Your task to perform on an android device: find snoozed emails in the gmail app Image 0: 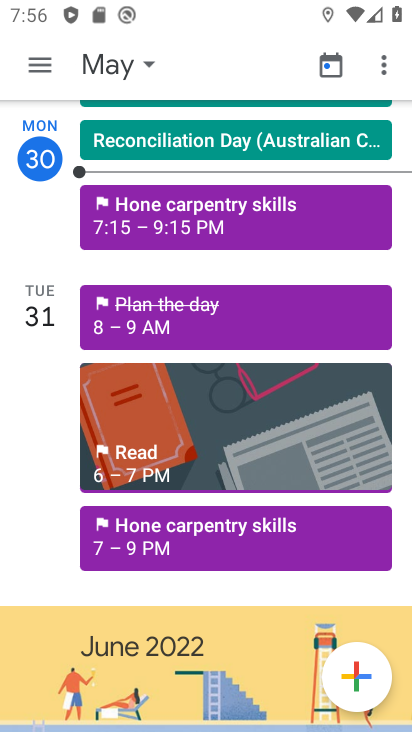
Step 0: press home button
Your task to perform on an android device: find snoozed emails in the gmail app Image 1: 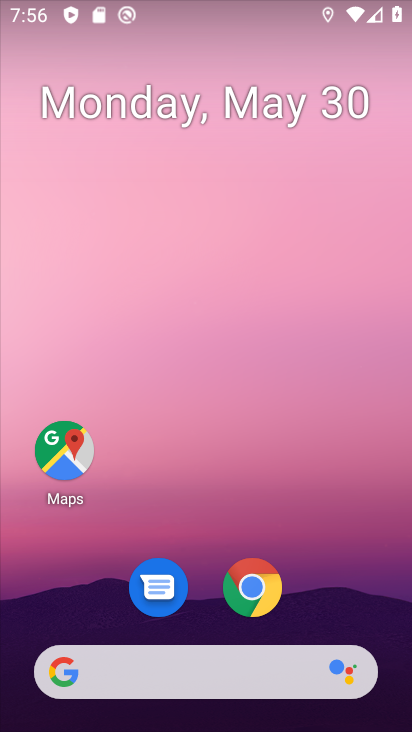
Step 1: drag from (231, 665) to (356, 43)
Your task to perform on an android device: find snoozed emails in the gmail app Image 2: 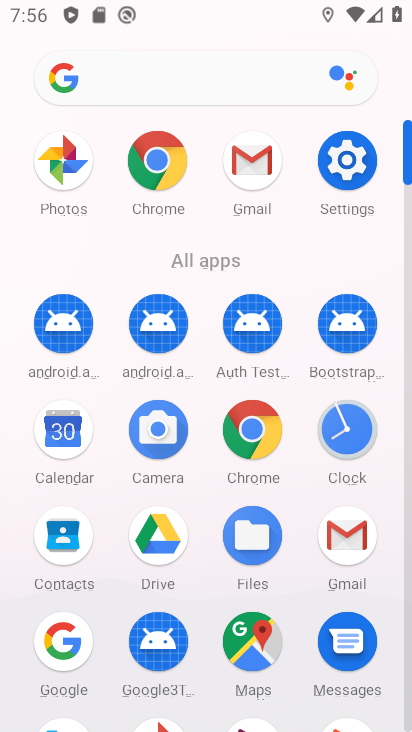
Step 2: click (253, 176)
Your task to perform on an android device: find snoozed emails in the gmail app Image 3: 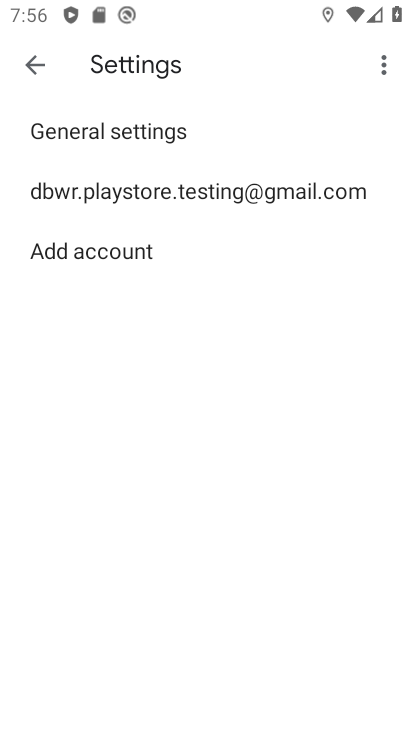
Step 3: click (38, 68)
Your task to perform on an android device: find snoozed emails in the gmail app Image 4: 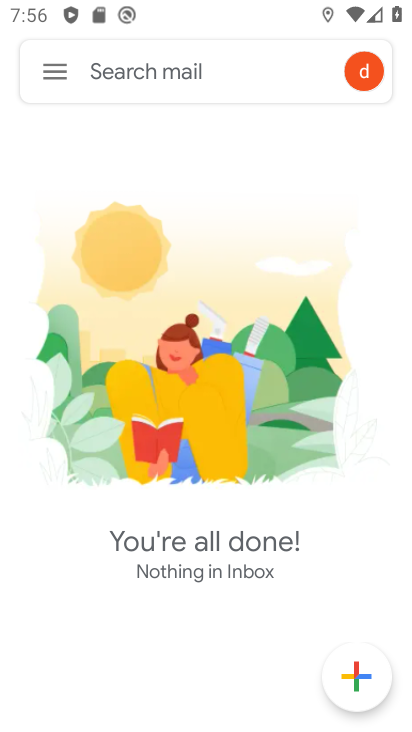
Step 4: click (47, 70)
Your task to perform on an android device: find snoozed emails in the gmail app Image 5: 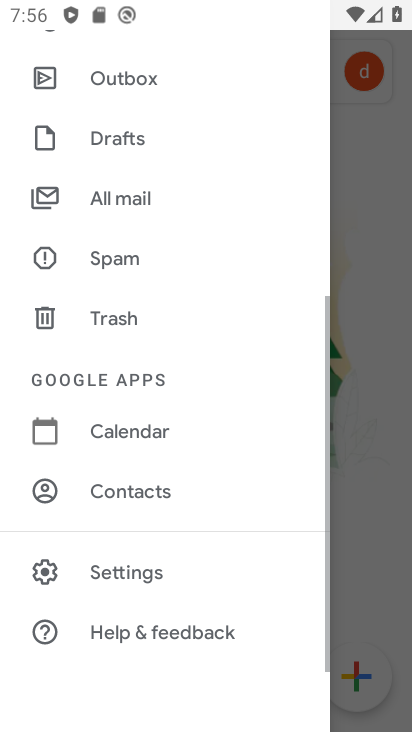
Step 5: drag from (274, 102) to (173, 592)
Your task to perform on an android device: find snoozed emails in the gmail app Image 6: 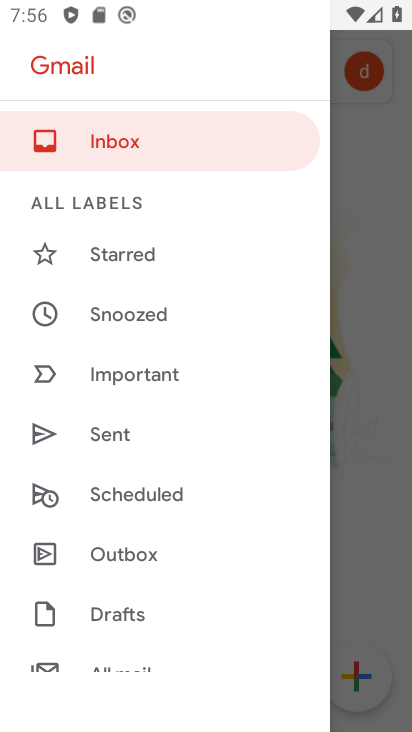
Step 6: click (125, 137)
Your task to perform on an android device: find snoozed emails in the gmail app Image 7: 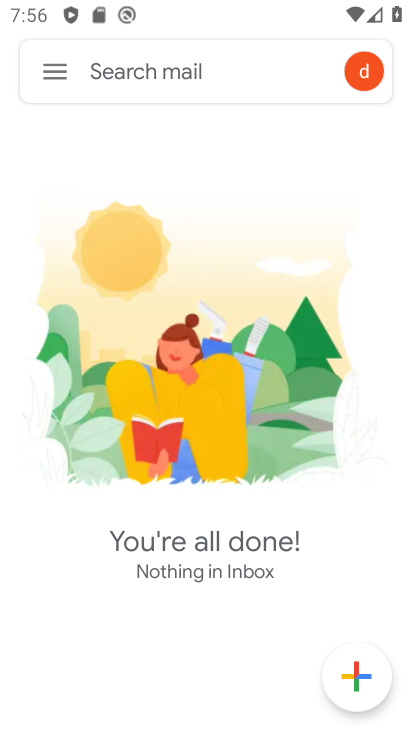
Step 7: click (154, 131)
Your task to perform on an android device: find snoozed emails in the gmail app Image 8: 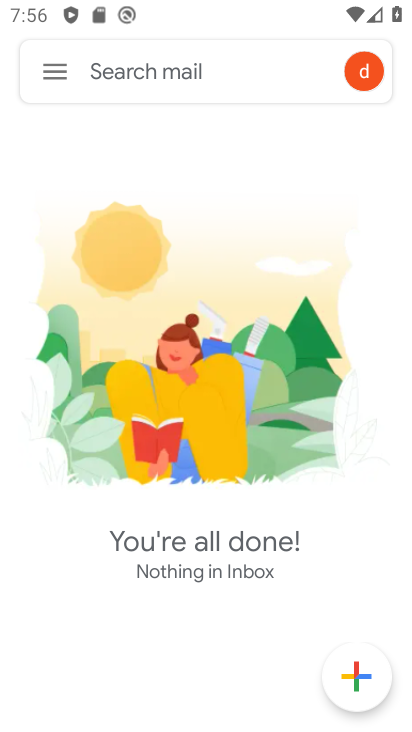
Step 8: click (53, 71)
Your task to perform on an android device: find snoozed emails in the gmail app Image 9: 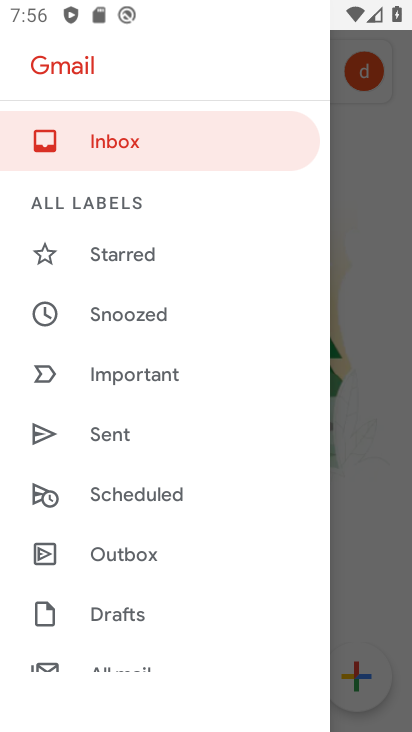
Step 9: click (140, 314)
Your task to perform on an android device: find snoozed emails in the gmail app Image 10: 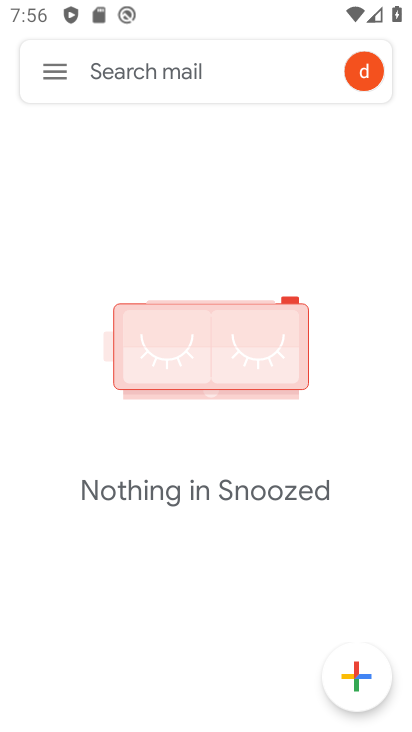
Step 10: task complete